Your task to perform on an android device: Go to Wikipedia Image 0: 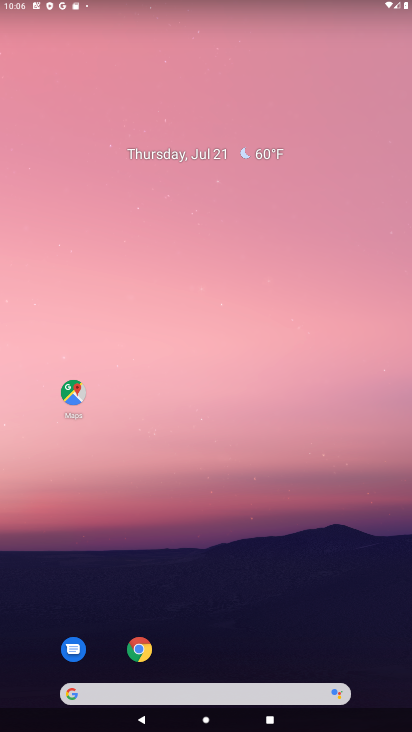
Step 0: drag from (191, 688) to (331, 77)
Your task to perform on an android device: Go to Wikipedia Image 1: 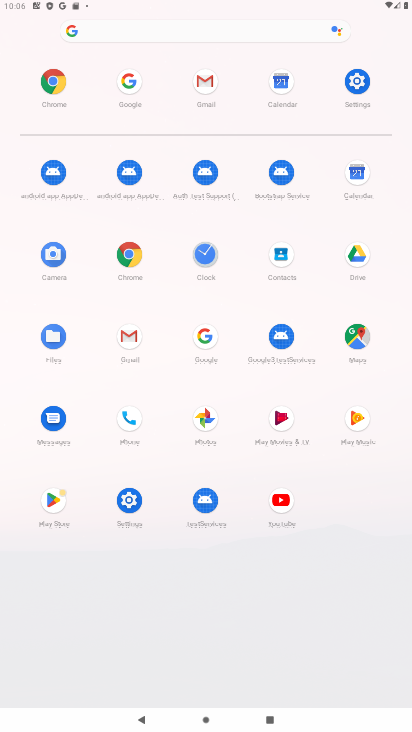
Step 1: click (124, 79)
Your task to perform on an android device: Go to Wikipedia Image 2: 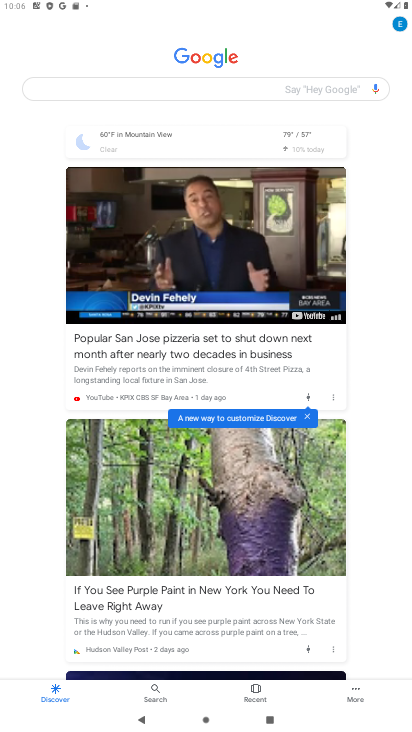
Step 2: click (166, 84)
Your task to perform on an android device: Go to Wikipedia Image 3: 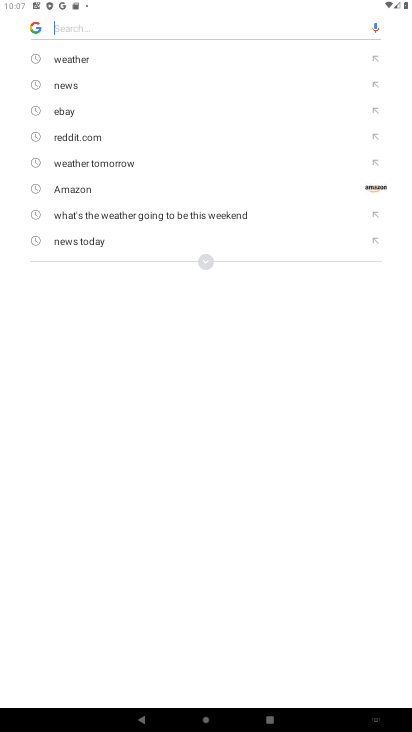
Step 3: type "Wikipedia"
Your task to perform on an android device: Go to Wikipedia Image 4: 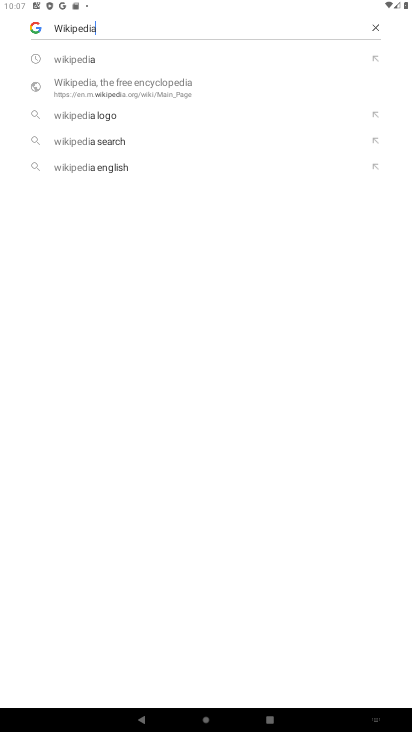
Step 4: type ""
Your task to perform on an android device: Go to Wikipedia Image 5: 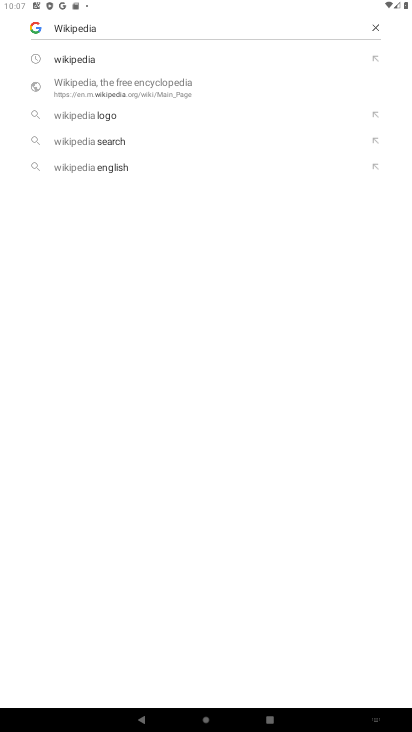
Step 5: click (84, 63)
Your task to perform on an android device: Go to Wikipedia Image 6: 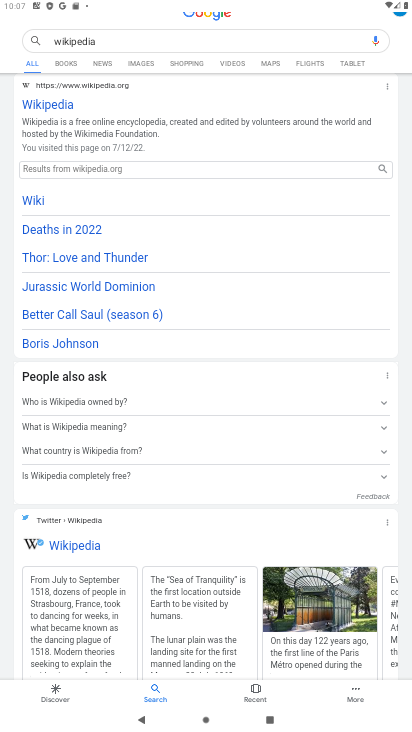
Step 6: click (68, 111)
Your task to perform on an android device: Go to Wikipedia Image 7: 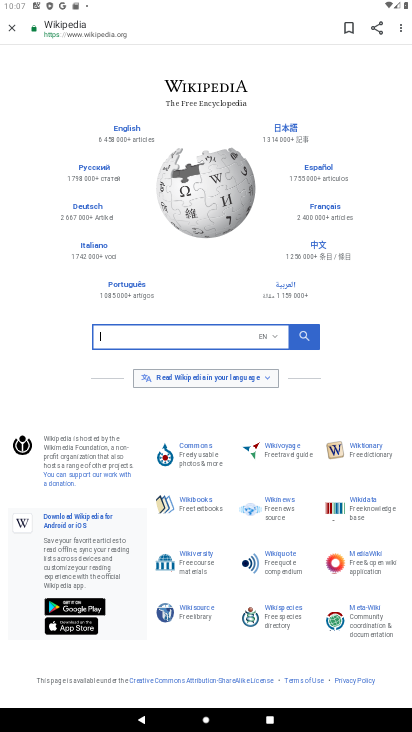
Step 7: task complete